Your task to perform on an android device: change keyboard looks Image 0: 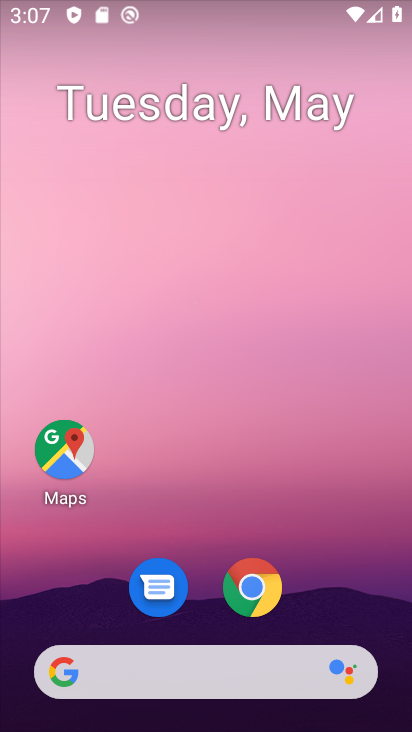
Step 0: drag from (310, 555) to (297, 129)
Your task to perform on an android device: change keyboard looks Image 1: 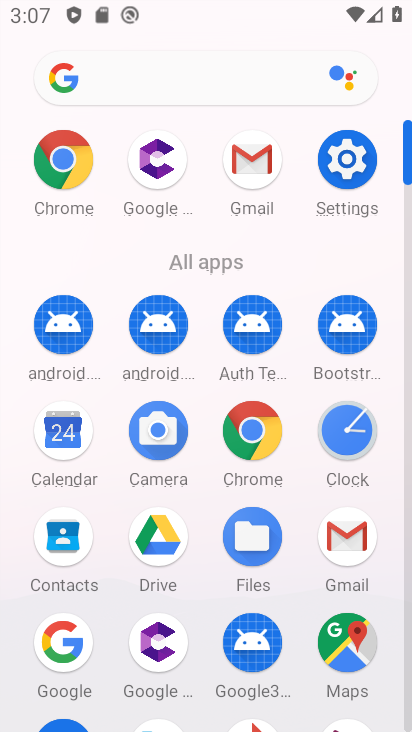
Step 1: click (343, 173)
Your task to perform on an android device: change keyboard looks Image 2: 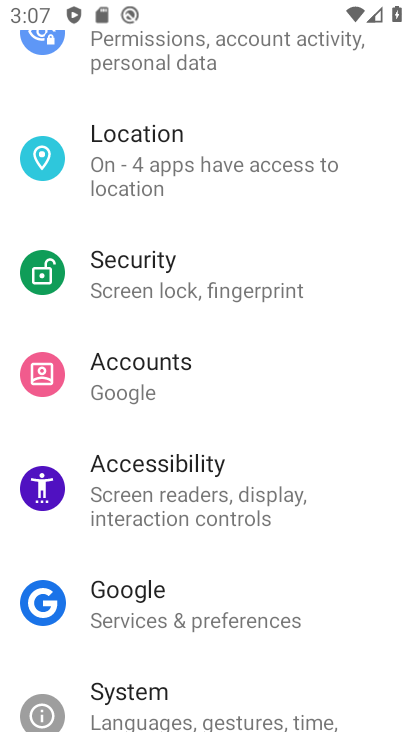
Step 2: click (164, 494)
Your task to perform on an android device: change keyboard looks Image 3: 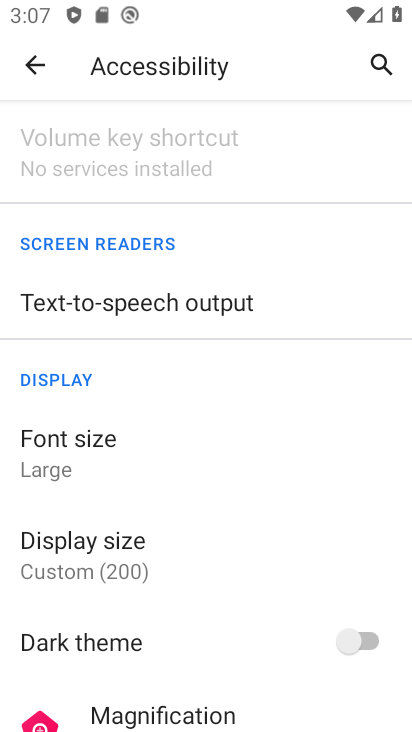
Step 3: click (48, 64)
Your task to perform on an android device: change keyboard looks Image 4: 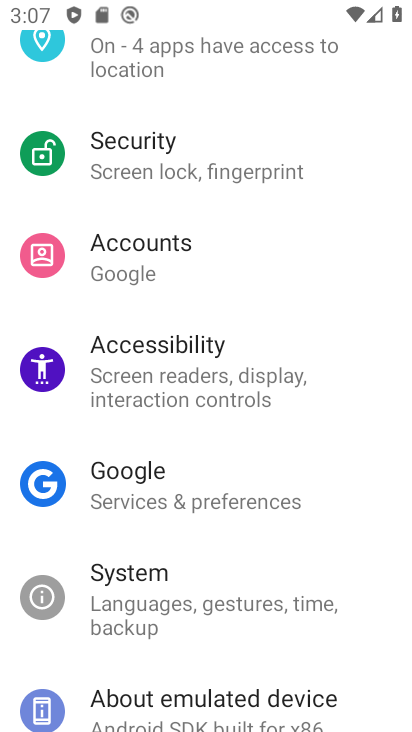
Step 4: drag from (172, 635) to (230, 346)
Your task to perform on an android device: change keyboard looks Image 5: 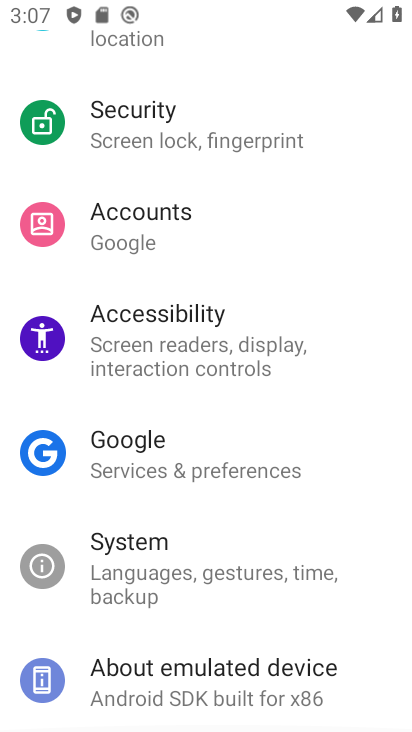
Step 5: click (156, 574)
Your task to perform on an android device: change keyboard looks Image 6: 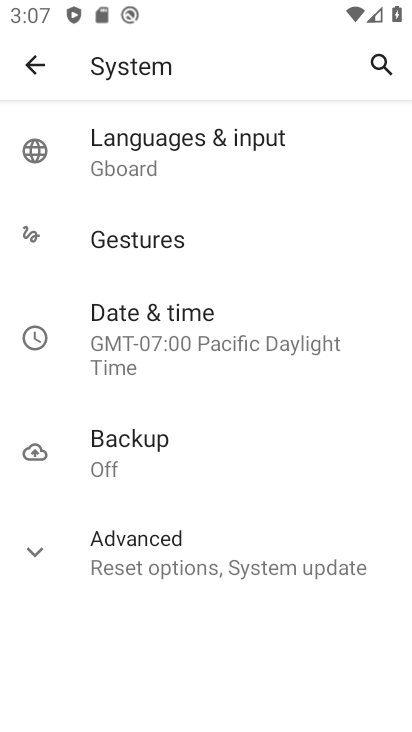
Step 6: click (162, 149)
Your task to perform on an android device: change keyboard looks Image 7: 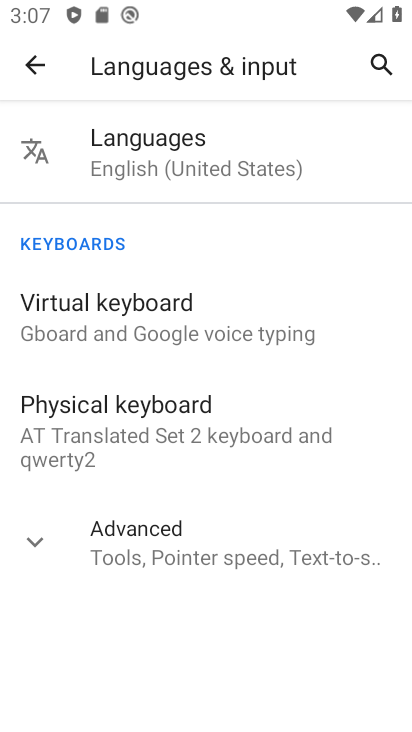
Step 7: click (121, 303)
Your task to perform on an android device: change keyboard looks Image 8: 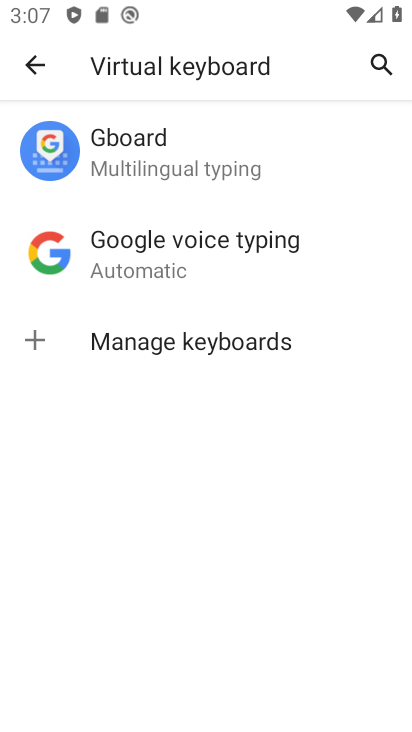
Step 8: drag from (134, 261) to (180, 116)
Your task to perform on an android device: change keyboard looks Image 9: 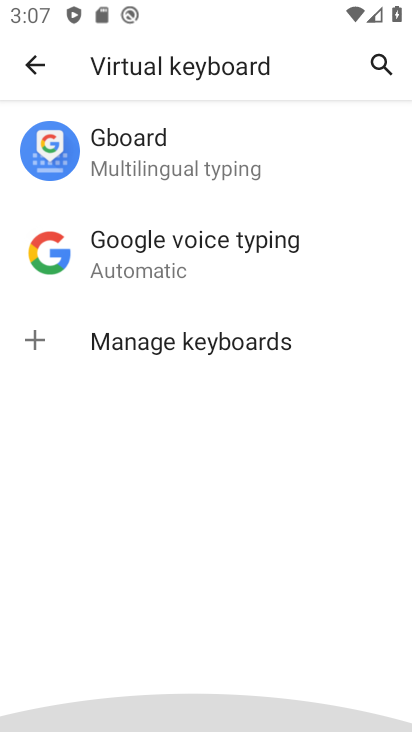
Step 9: click (180, 116)
Your task to perform on an android device: change keyboard looks Image 10: 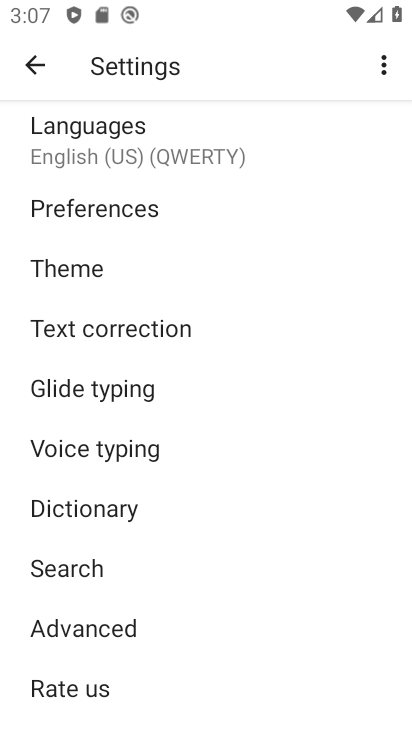
Step 10: click (140, 272)
Your task to perform on an android device: change keyboard looks Image 11: 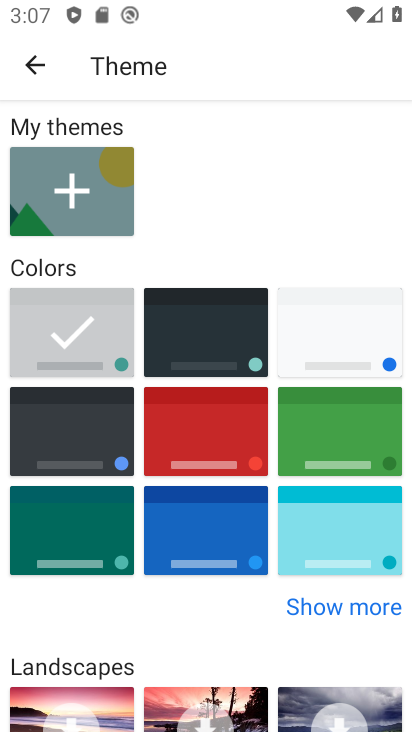
Step 11: click (201, 439)
Your task to perform on an android device: change keyboard looks Image 12: 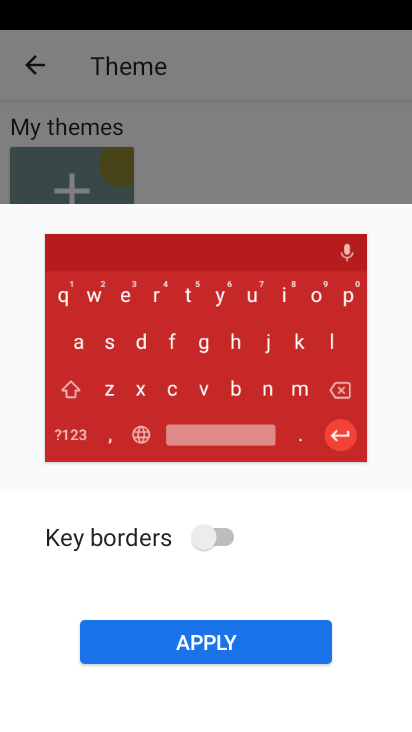
Step 12: click (212, 532)
Your task to perform on an android device: change keyboard looks Image 13: 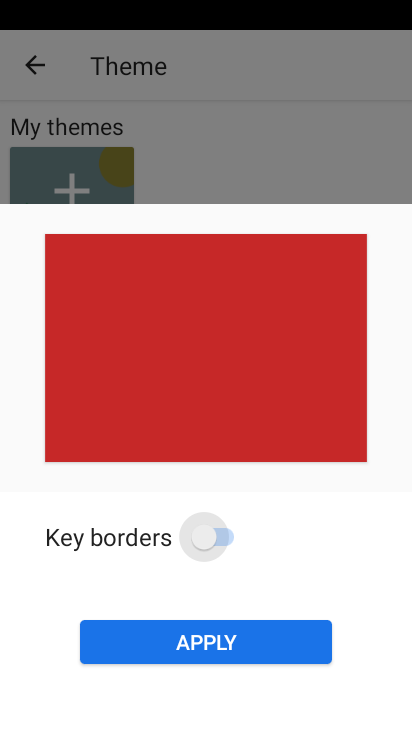
Step 13: click (234, 641)
Your task to perform on an android device: change keyboard looks Image 14: 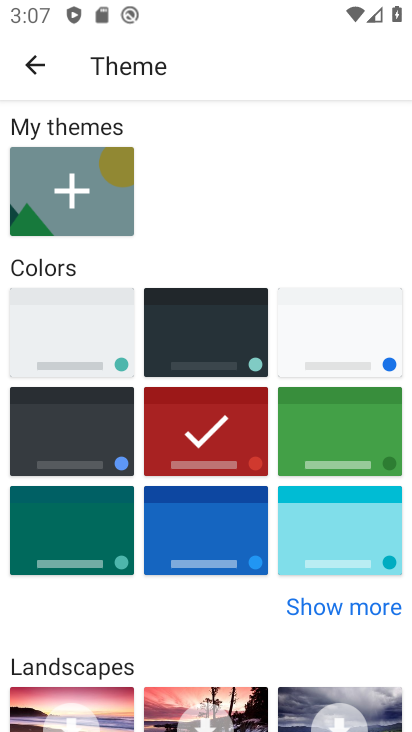
Step 14: task complete